Your task to perform on an android device: Find coffee shops on Maps Image 0: 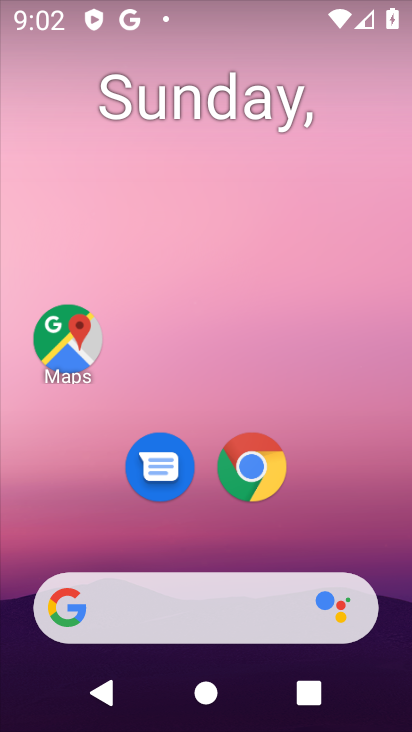
Step 0: click (68, 340)
Your task to perform on an android device: Find coffee shops on Maps Image 1: 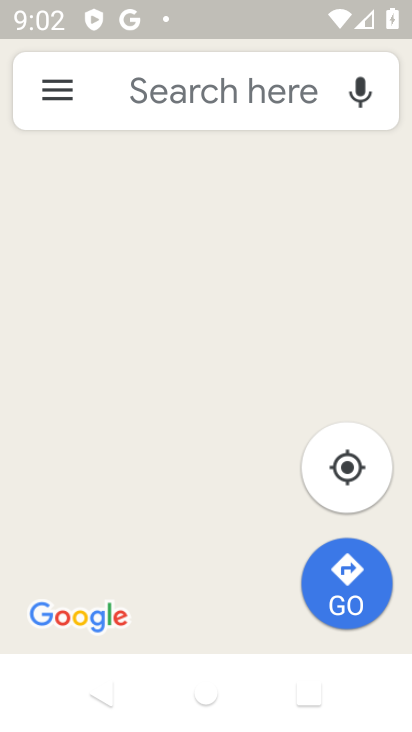
Step 1: click (216, 90)
Your task to perform on an android device: Find coffee shops on Maps Image 2: 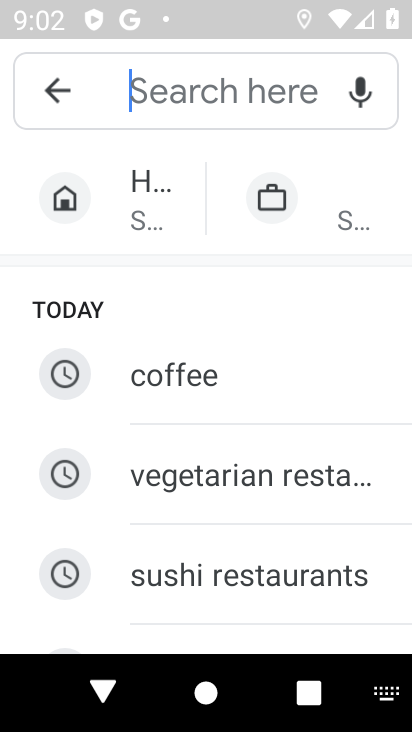
Step 2: type "coffee shops"
Your task to perform on an android device: Find coffee shops on Maps Image 3: 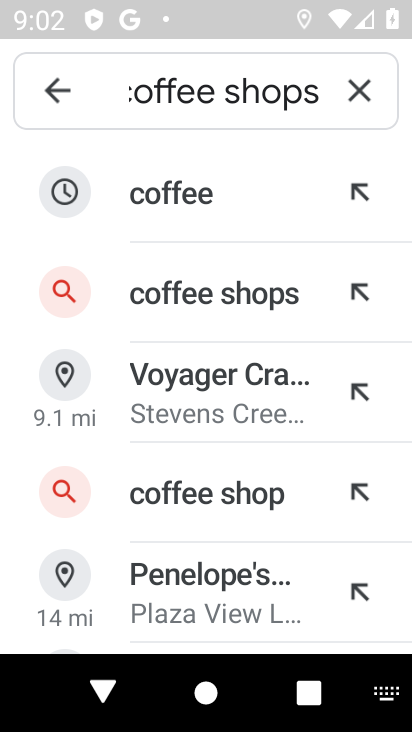
Step 3: click (211, 299)
Your task to perform on an android device: Find coffee shops on Maps Image 4: 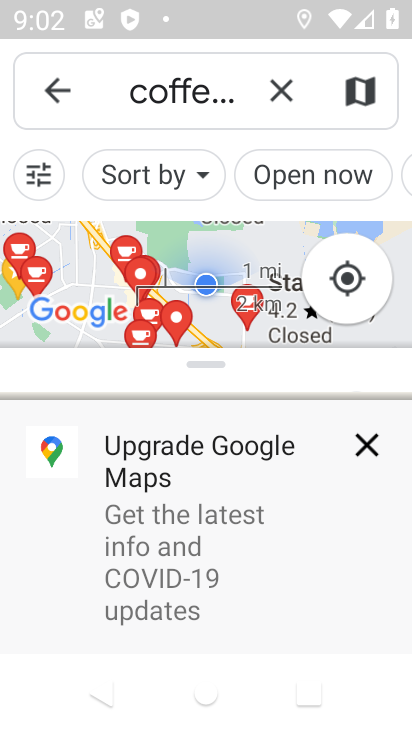
Step 4: task complete